Your task to perform on an android device: toggle location history Image 0: 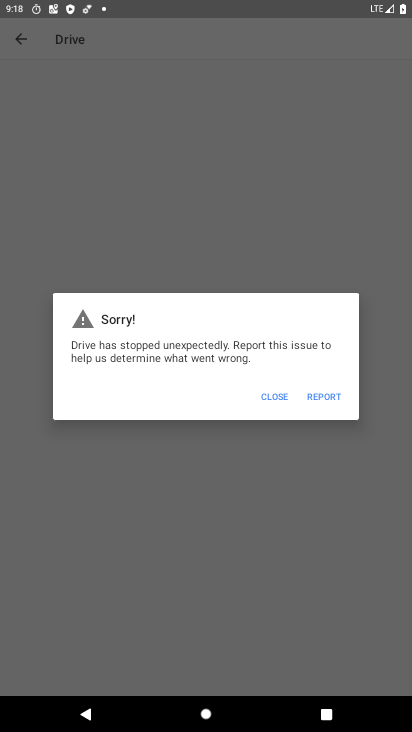
Step 0: press home button
Your task to perform on an android device: toggle location history Image 1: 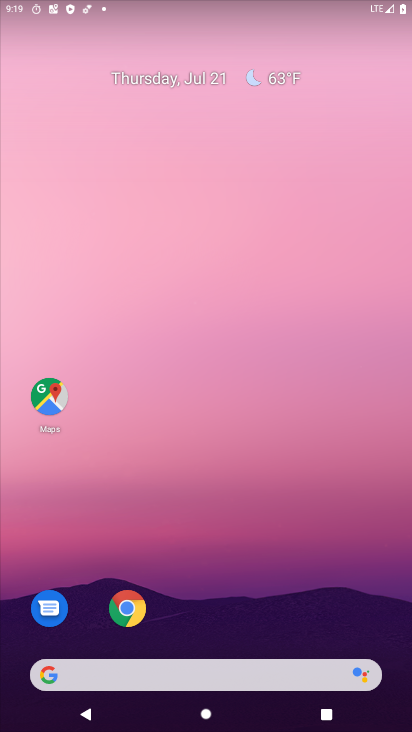
Step 1: drag from (225, 682) to (158, 64)
Your task to perform on an android device: toggle location history Image 2: 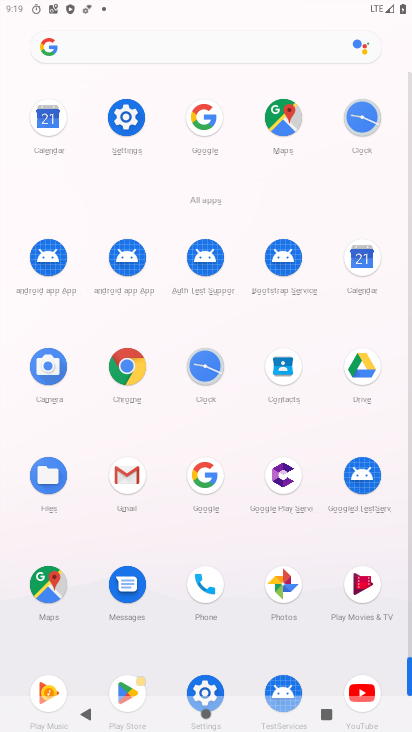
Step 2: click (117, 124)
Your task to perform on an android device: toggle location history Image 3: 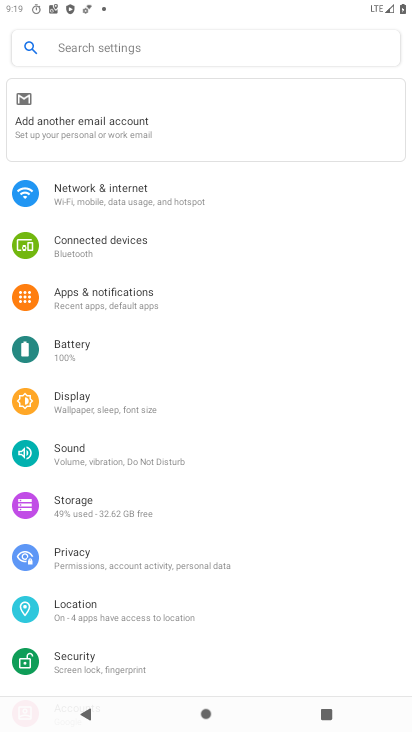
Step 3: click (76, 612)
Your task to perform on an android device: toggle location history Image 4: 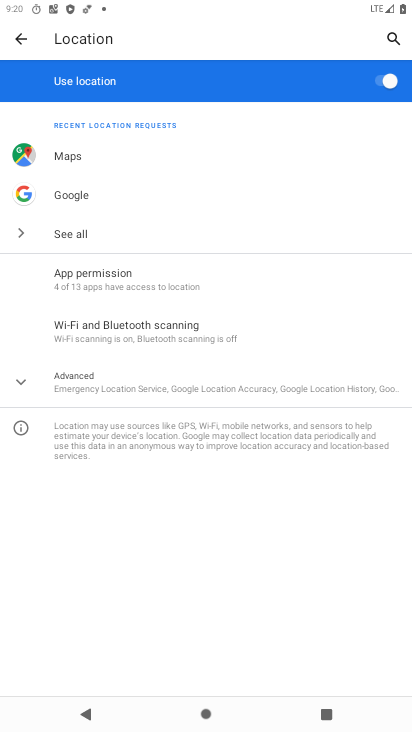
Step 4: click (174, 382)
Your task to perform on an android device: toggle location history Image 5: 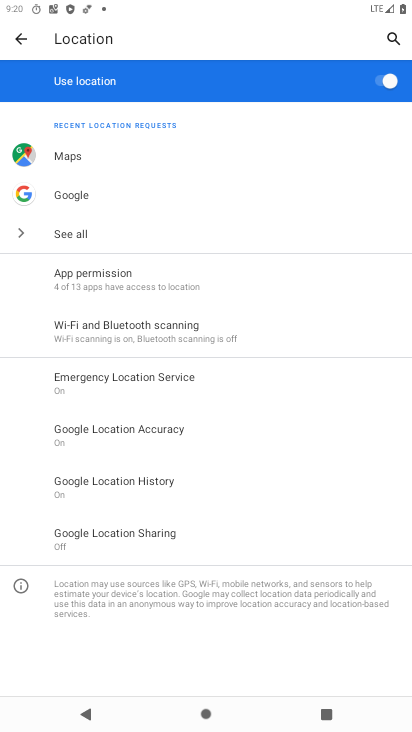
Step 5: click (157, 484)
Your task to perform on an android device: toggle location history Image 6: 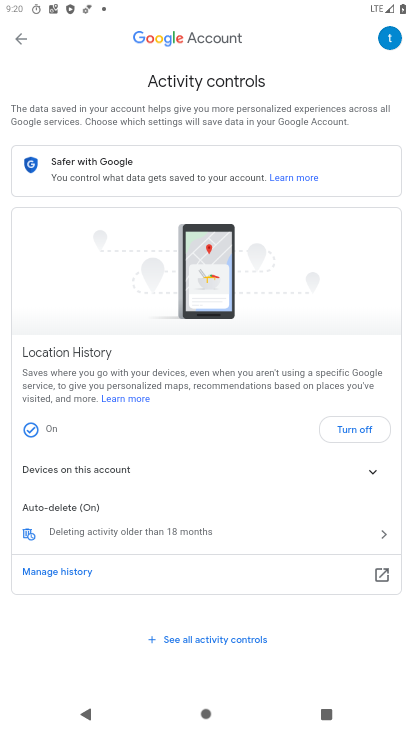
Step 6: click (360, 436)
Your task to perform on an android device: toggle location history Image 7: 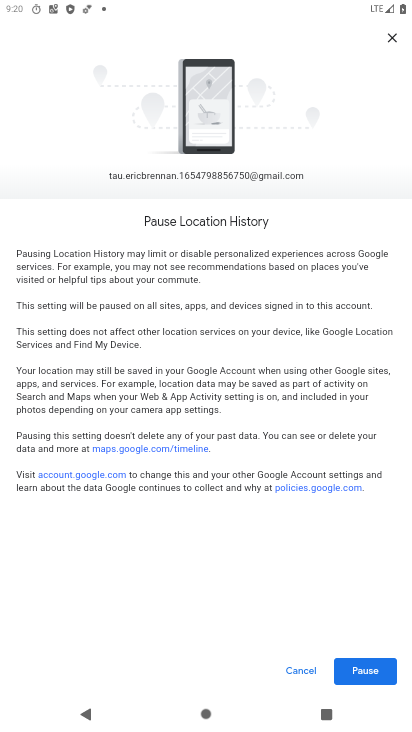
Step 7: drag from (260, 403) to (260, 132)
Your task to perform on an android device: toggle location history Image 8: 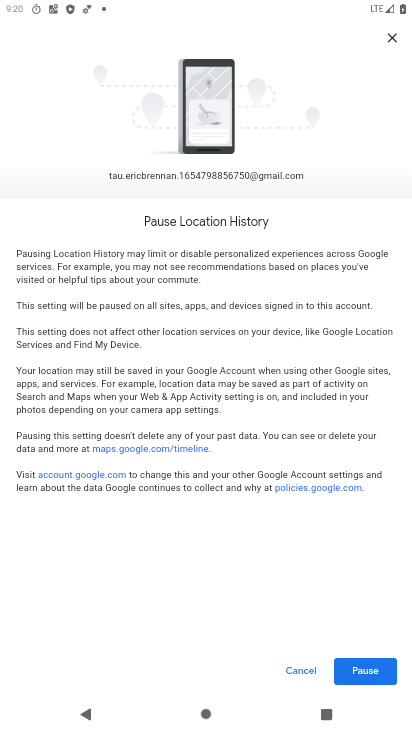
Step 8: click (376, 673)
Your task to perform on an android device: toggle location history Image 9: 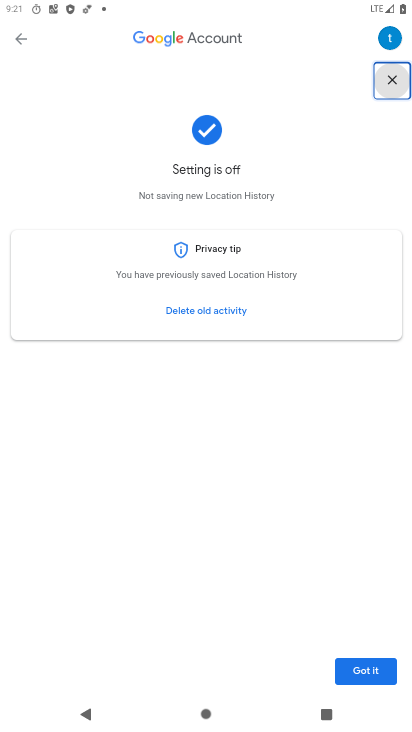
Step 9: click (371, 669)
Your task to perform on an android device: toggle location history Image 10: 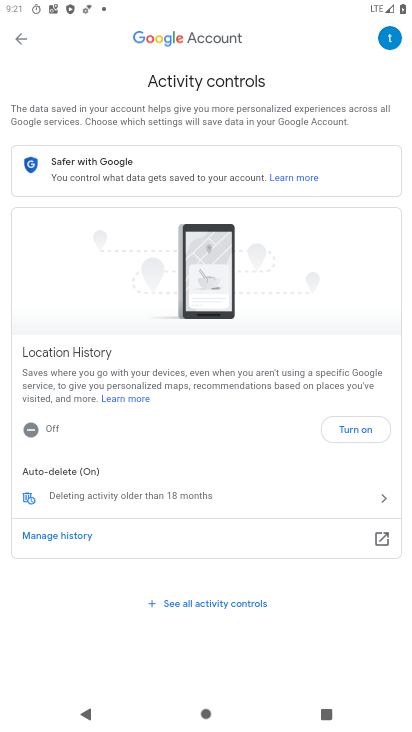
Step 10: task complete